Your task to perform on an android device: Go to eBay Image 0: 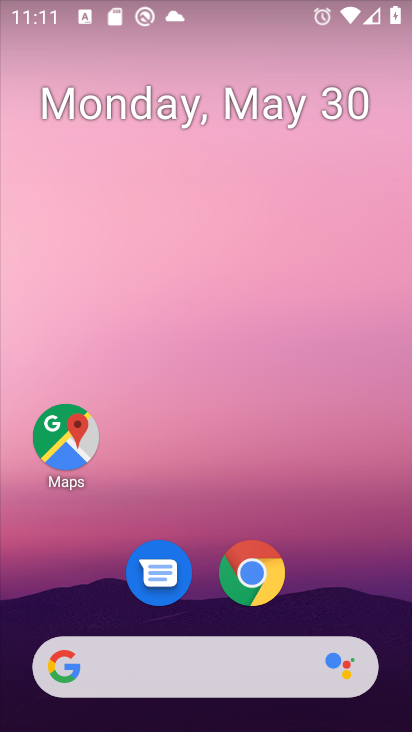
Step 0: drag from (240, 690) to (240, 83)
Your task to perform on an android device: Go to eBay Image 1: 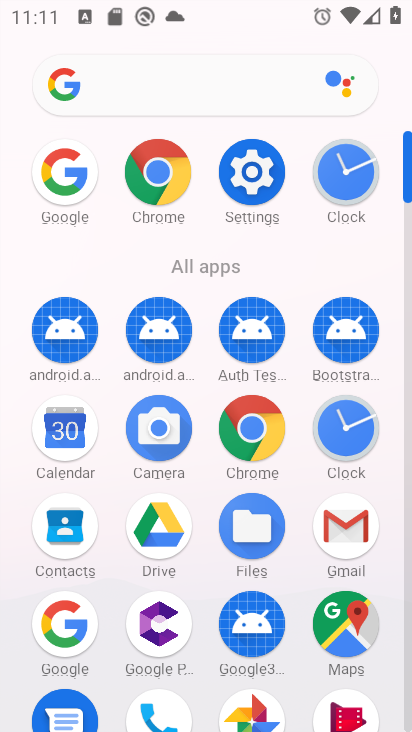
Step 1: click (161, 177)
Your task to perform on an android device: Go to eBay Image 2: 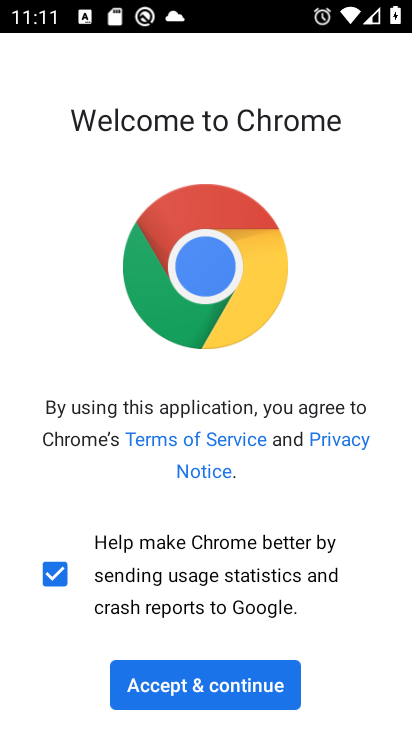
Step 2: click (180, 683)
Your task to perform on an android device: Go to eBay Image 3: 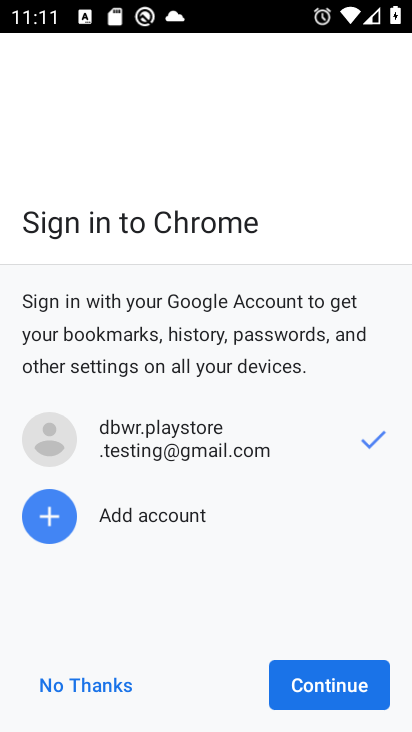
Step 3: click (294, 679)
Your task to perform on an android device: Go to eBay Image 4: 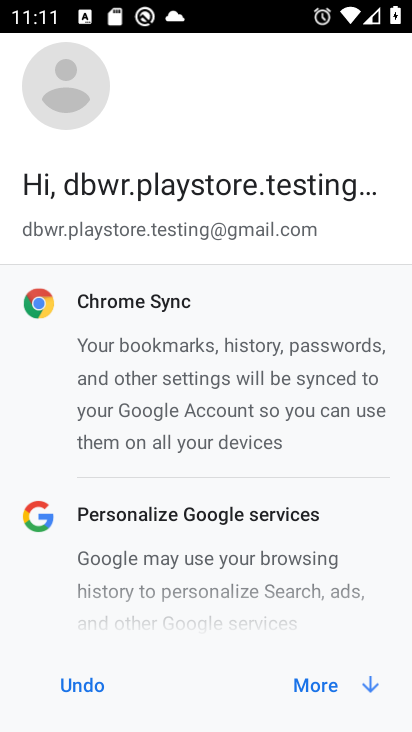
Step 4: click (325, 693)
Your task to perform on an android device: Go to eBay Image 5: 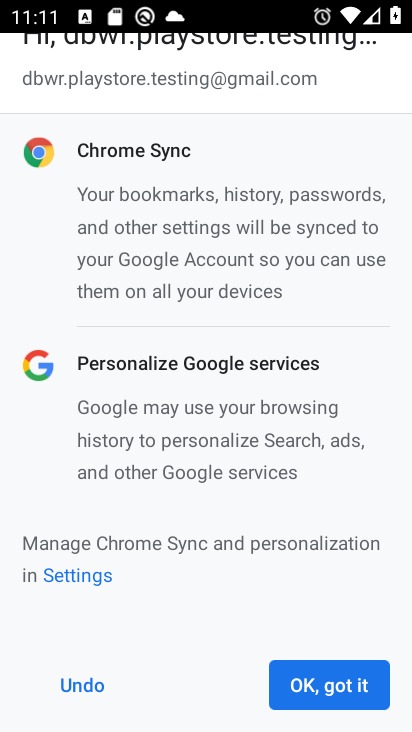
Step 5: click (326, 666)
Your task to perform on an android device: Go to eBay Image 6: 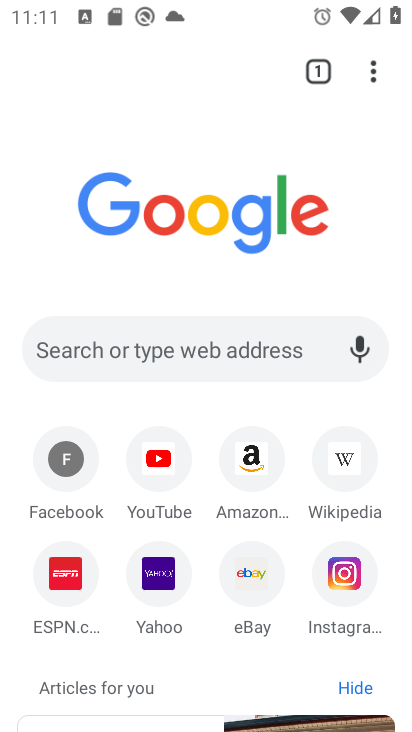
Step 6: click (247, 583)
Your task to perform on an android device: Go to eBay Image 7: 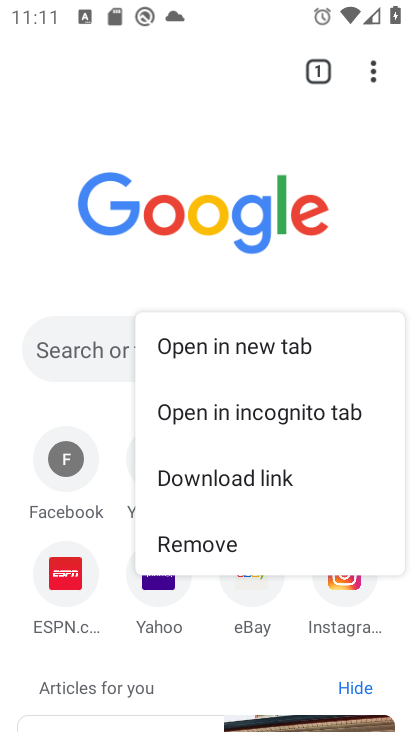
Step 7: click (248, 607)
Your task to perform on an android device: Go to eBay Image 8: 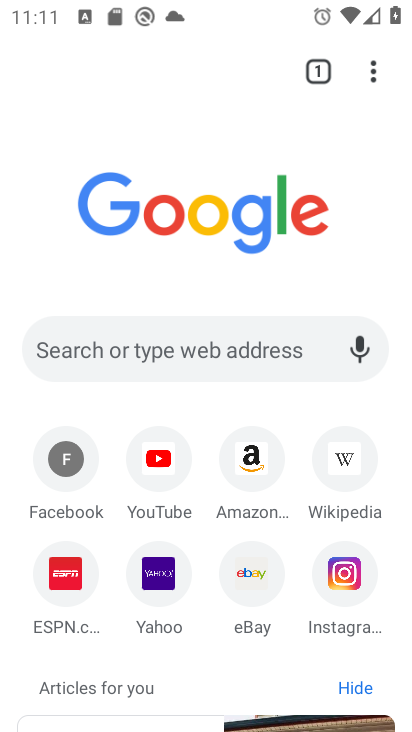
Step 8: click (266, 581)
Your task to perform on an android device: Go to eBay Image 9: 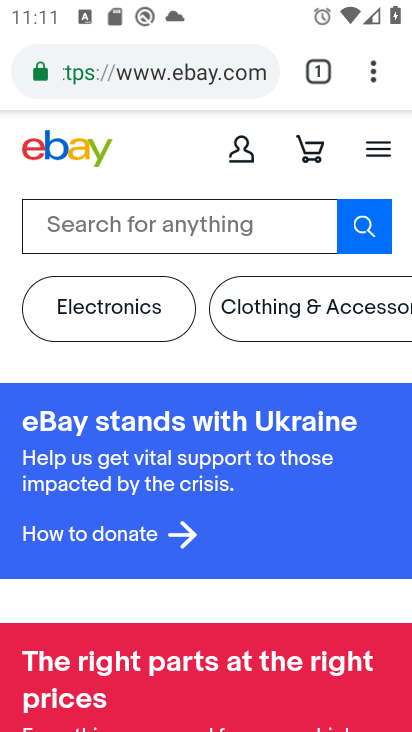
Step 9: task complete